Your task to perform on an android device: change the clock display to show seconds Image 0: 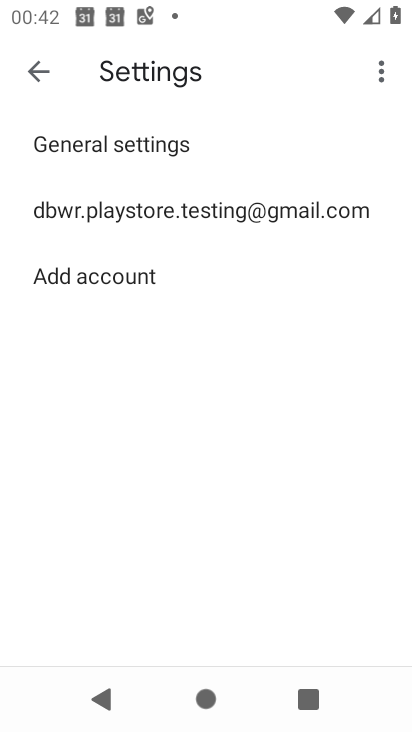
Step 0: press home button
Your task to perform on an android device: change the clock display to show seconds Image 1: 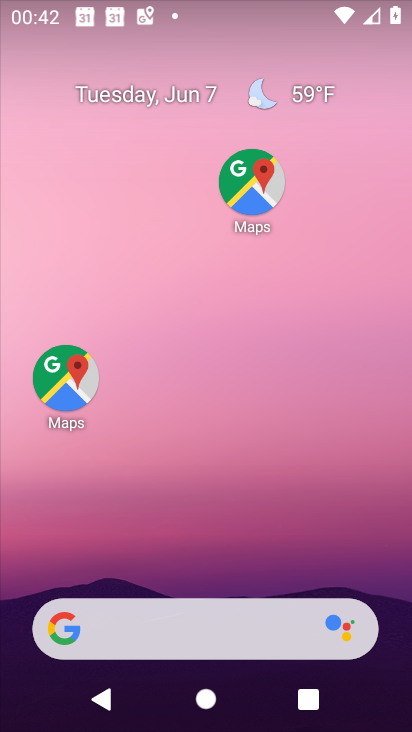
Step 1: drag from (198, 571) to (236, 56)
Your task to perform on an android device: change the clock display to show seconds Image 2: 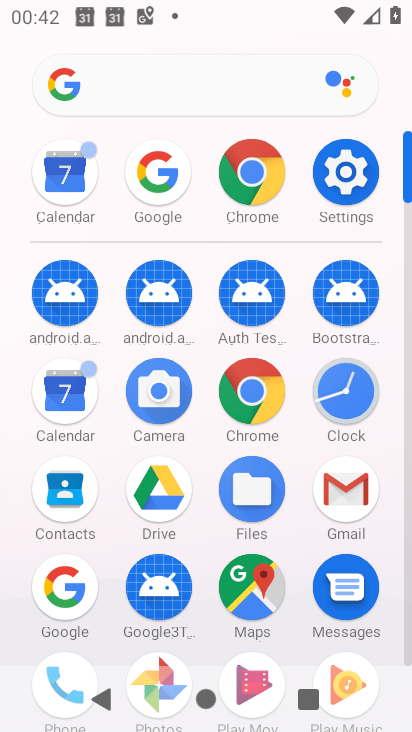
Step 2: click (349, 388)
Your task to perform on an android device: change the clock display to show seconds Image 3: 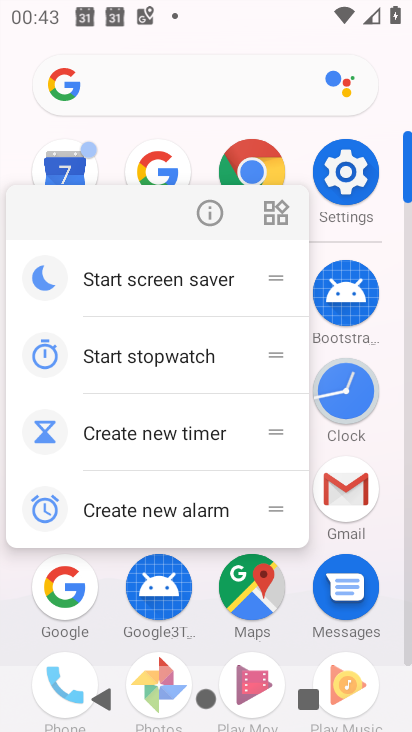
Step 3: click (353, 383)
Your task to perform on an android device: change the clock display to show seconds Image 4: 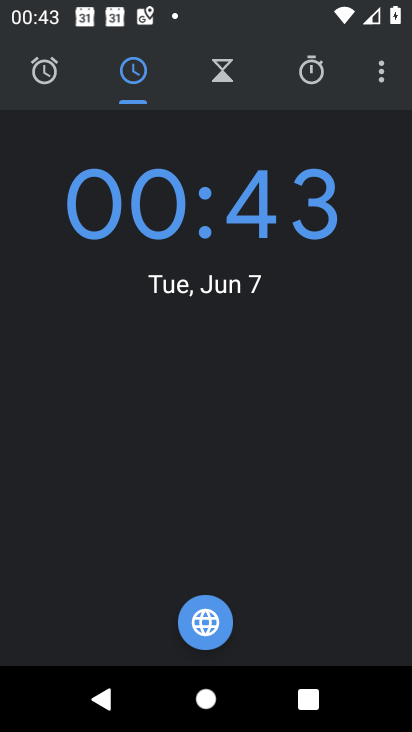
Step 4: click (372, 68)
Your task to perform on an android device: change the clock display to show seconds Image 5: 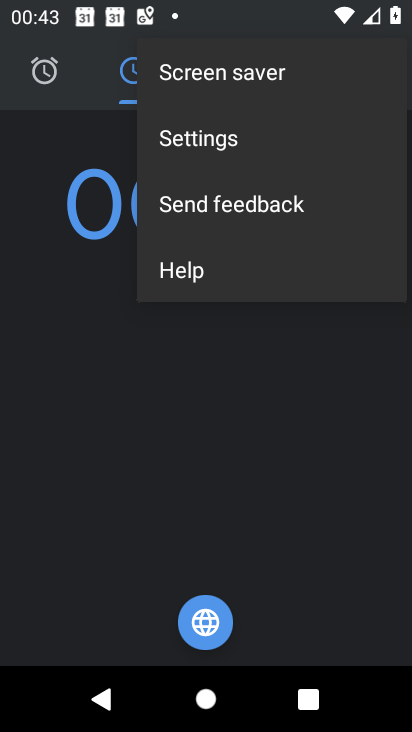
Step 5: click (213, 137)
Your task to perform on an android device: change the clock display to show seconds Image 6: 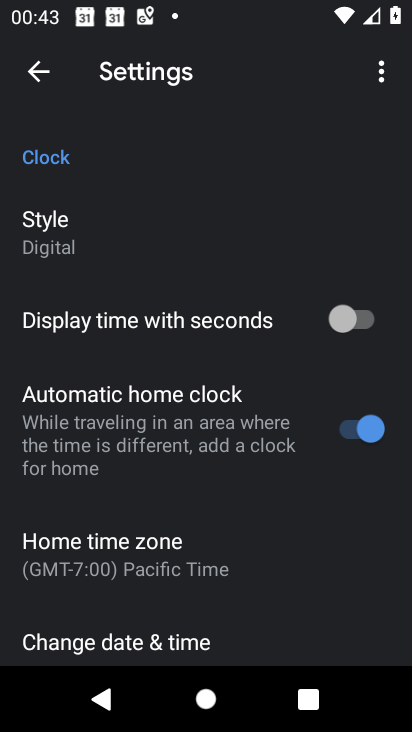
Step 6: click (342, 325)
Your task to perform on an android device: change the clock display to show seconds Image 7: 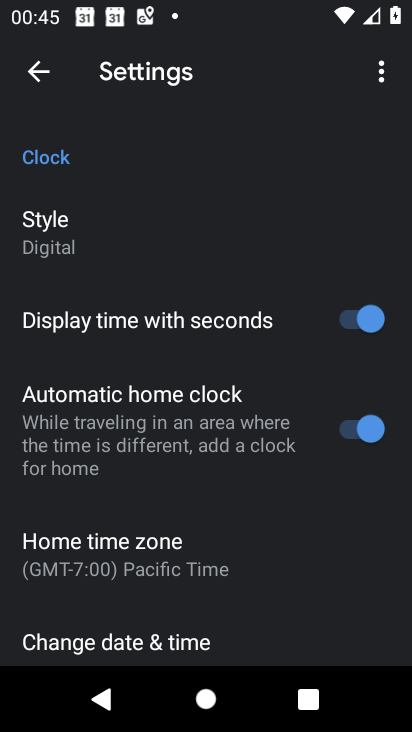
Step 7: task complete